Your task to perform on an android device: set the stopwatch Image 0: 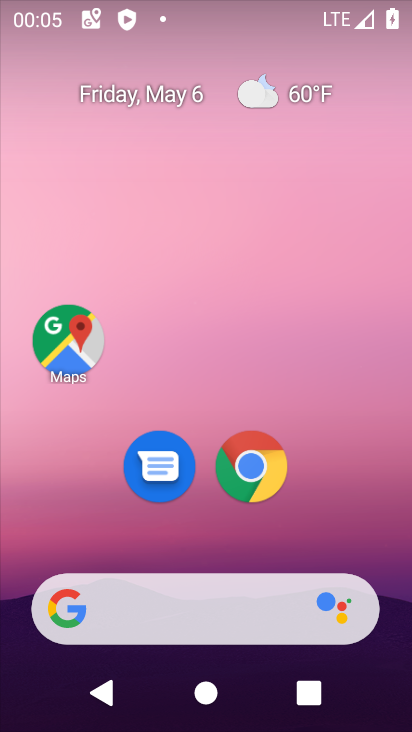
Step 0: drag from (200, 566) to (266, 97)
Your task to perform on an android device: set the stopwatch Image 1: 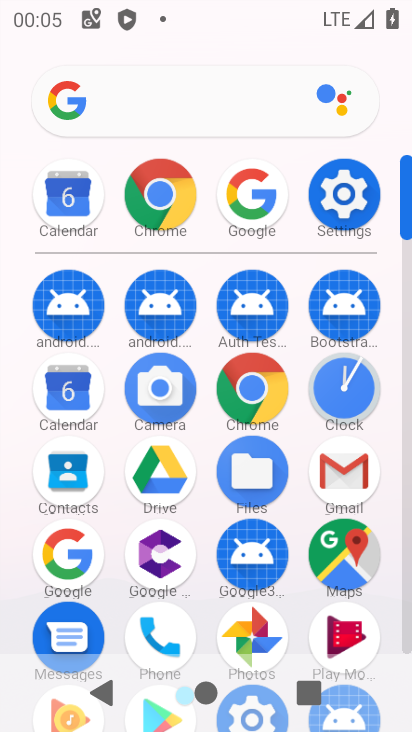
Step 1: click (359, 378)
Your task to perform on an android device: set the stopwatch Image 2: 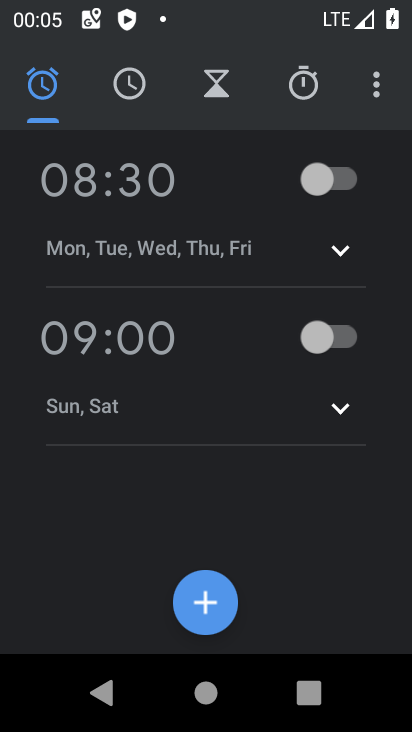
Step 2: click (308, 85)
Your task to perform on an android device: set the stopwatch Image 3: 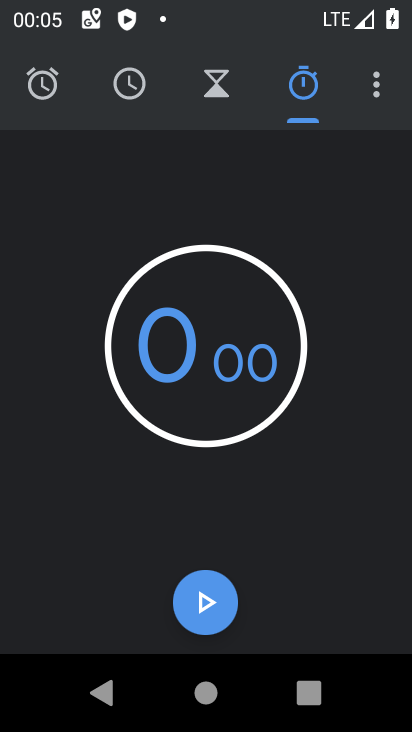
Step 3: click (203, 606)
Your task to perform on an android device: set the stopwatch Image 4: 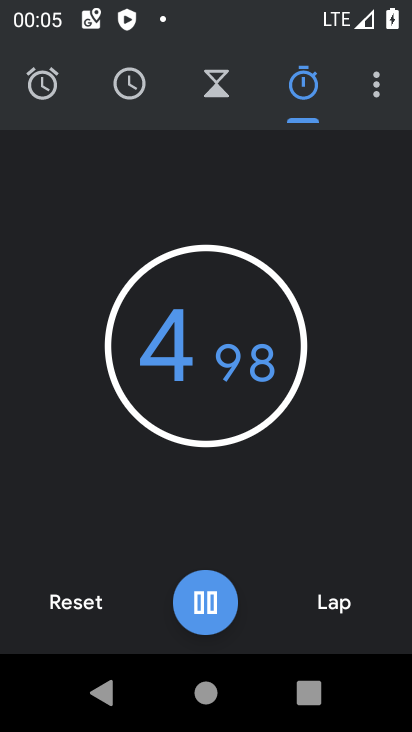
Step 4: click (203, 606)
Your task to perform on an android device: set the stopwatch Image 5: 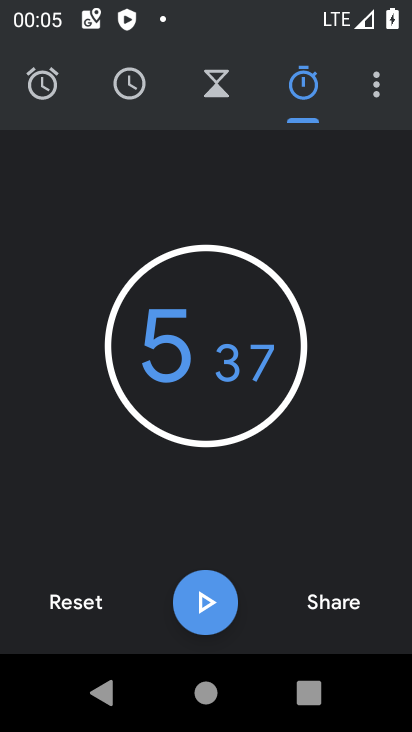
Step 5: task complete